Your task to perform on an android device: Do I have any events tomorrow? Image 0: 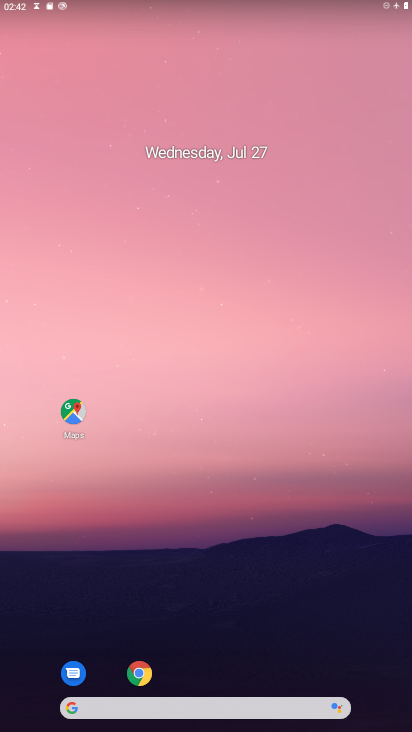
Step 0: drag from (209, 630) to (197, 94)
Your task to perform on an android device: Do I have any events tomorrow? Image 1: 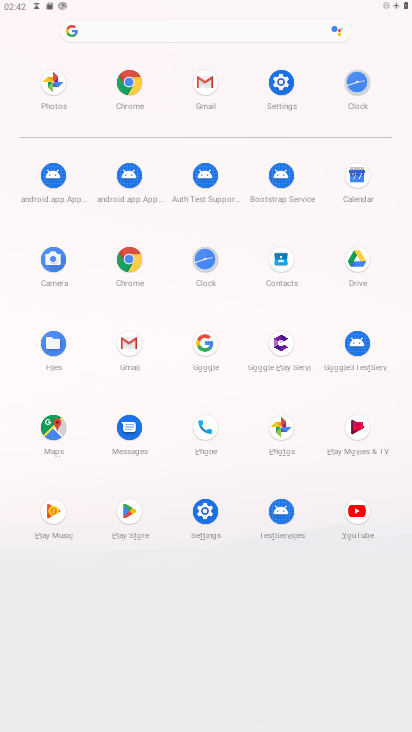
Step 1: click (355, 169)
Your task to perform on an android device: Do I have any events tomorrow? Image 2: 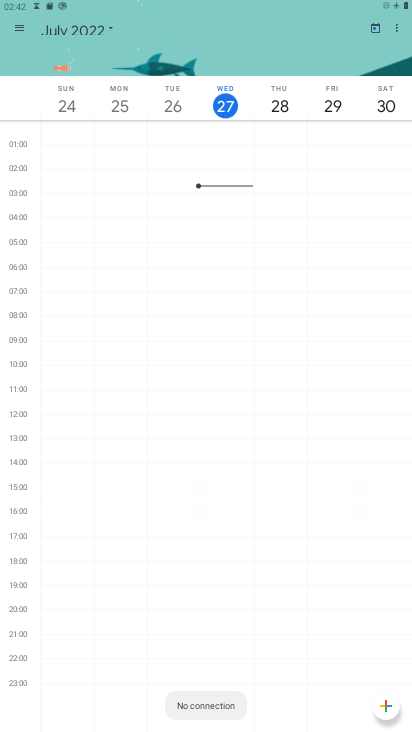
Step 2: click (266, 77)
Your task to perform on an android device: Do I have any events tomorrow? Image 3: 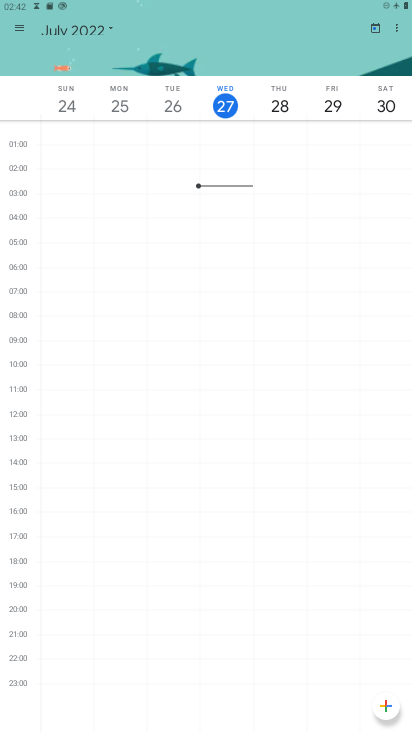
Step 3: click (283, 121)
Your task to perform on an android device: Do I have any events tomorrow? Image 4: 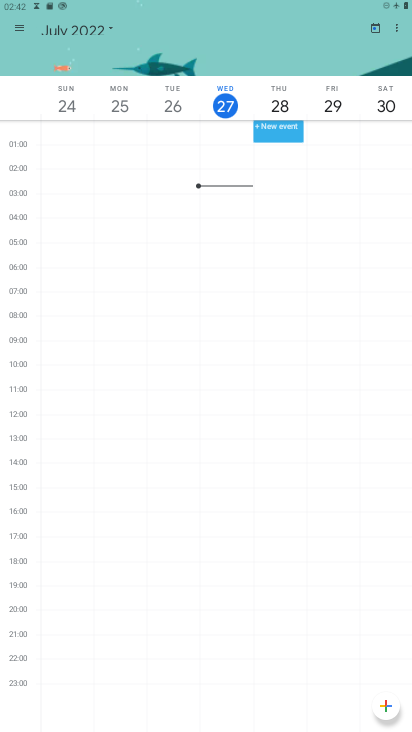
Step 4: click (277, 113)
Your task to perform on an android device: Do I have any events tomorrow? Image 5: 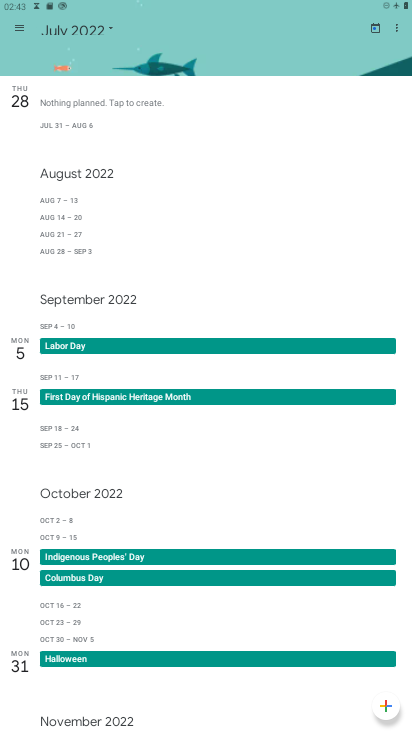
Step 5: task complete